Your task to perform on an android device: read, delete, or share a saved page in the chrome app Image 0: 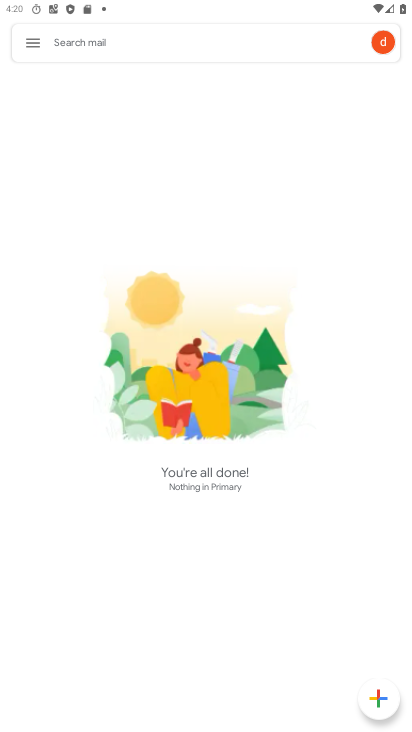
Step 0: press home button
Your task to perform on an android device: read, delete, or share a saved page in the chrome app Image 1: 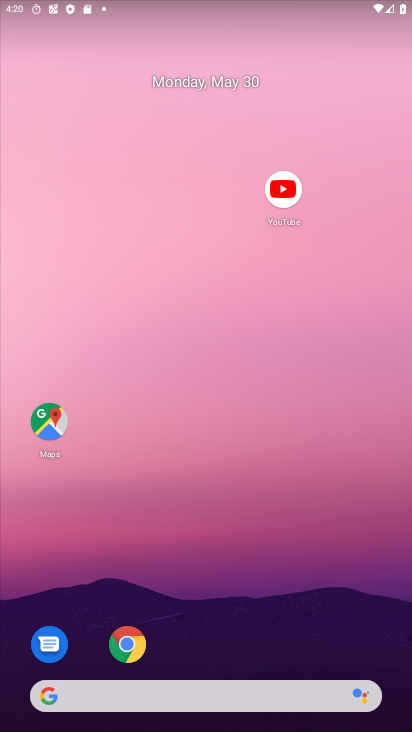
Step 1: click (131, 646)
Your task to perform on an android device: read, delete, or share a saved page in the chrome app Image 2: 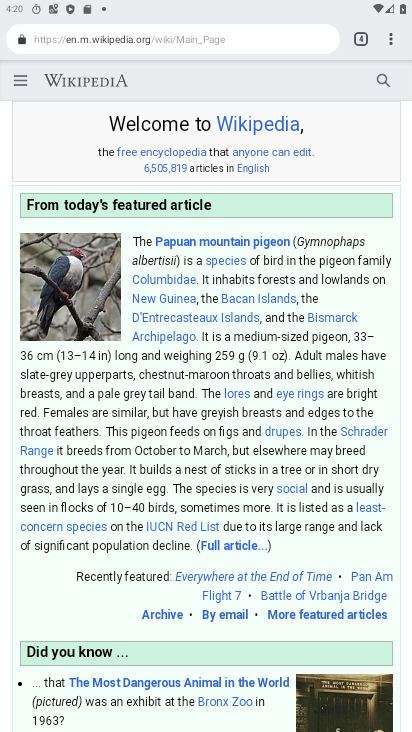
Step 2: click (387, 37)
Your task to perform on an android device: read, delete, or share a saved page in the chrome app Image 3: 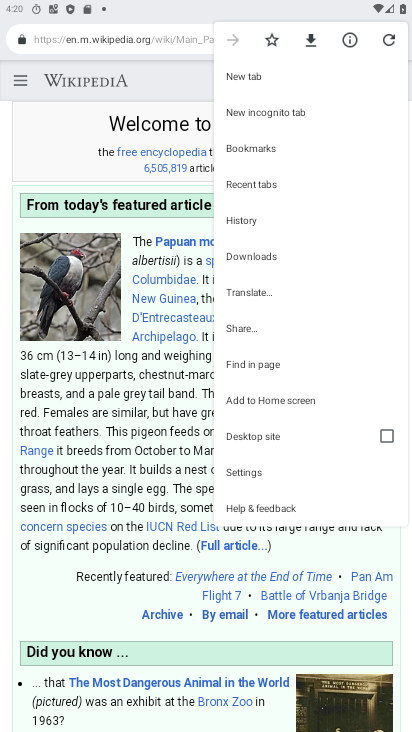
Step 3: click (272, 254)
Your task to perform on an android device: read, delete, or share a saved page in the chrome app Image 4: 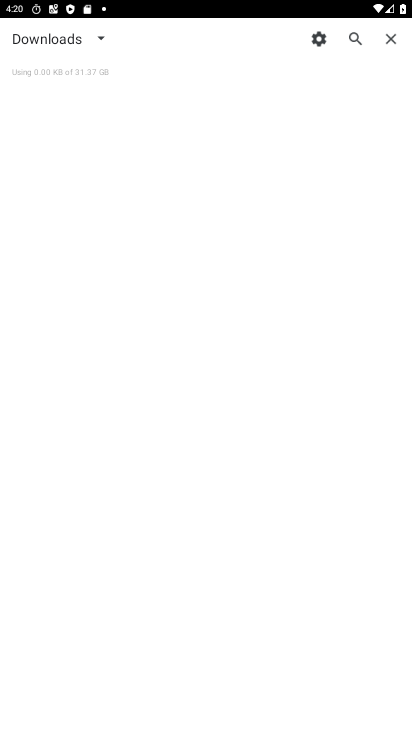
Step 4: task complete